Your task to perform on an android device: Do I have any events today? Image 0: 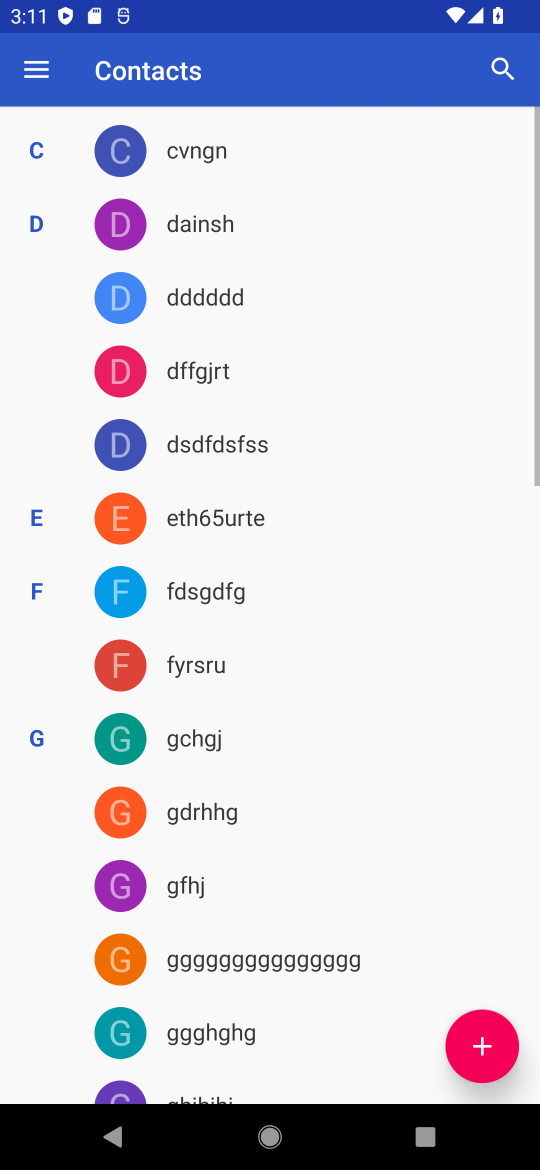
Step 0: press back button
Your task to perform on an android device: Do I have any events today? Image 1: 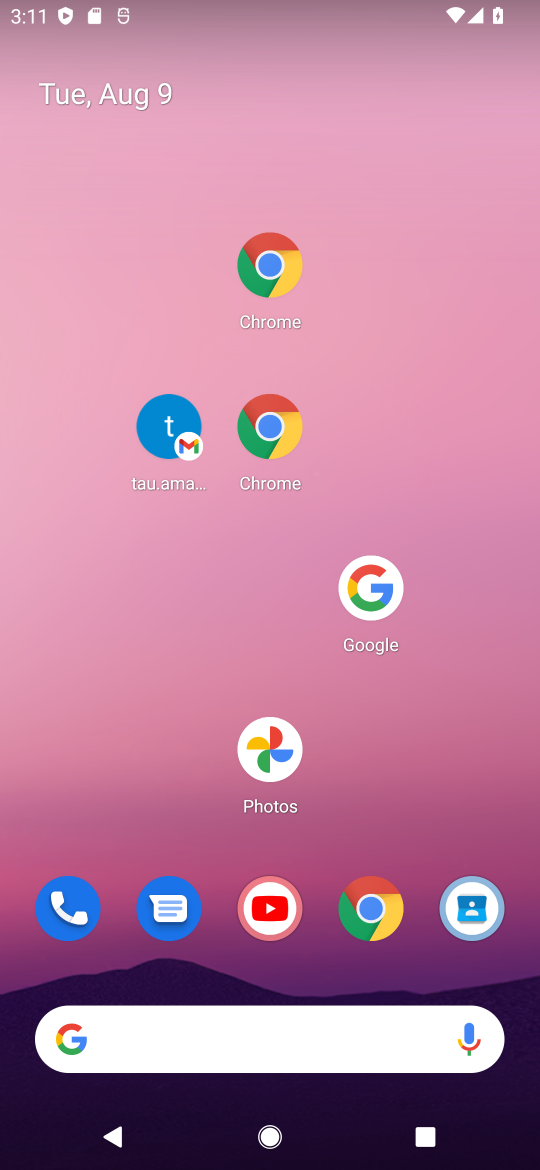
Step 1: drag from (318, 887) to (211, 217)
Your task to perform on an android device: Do I have any events today? Image 2: 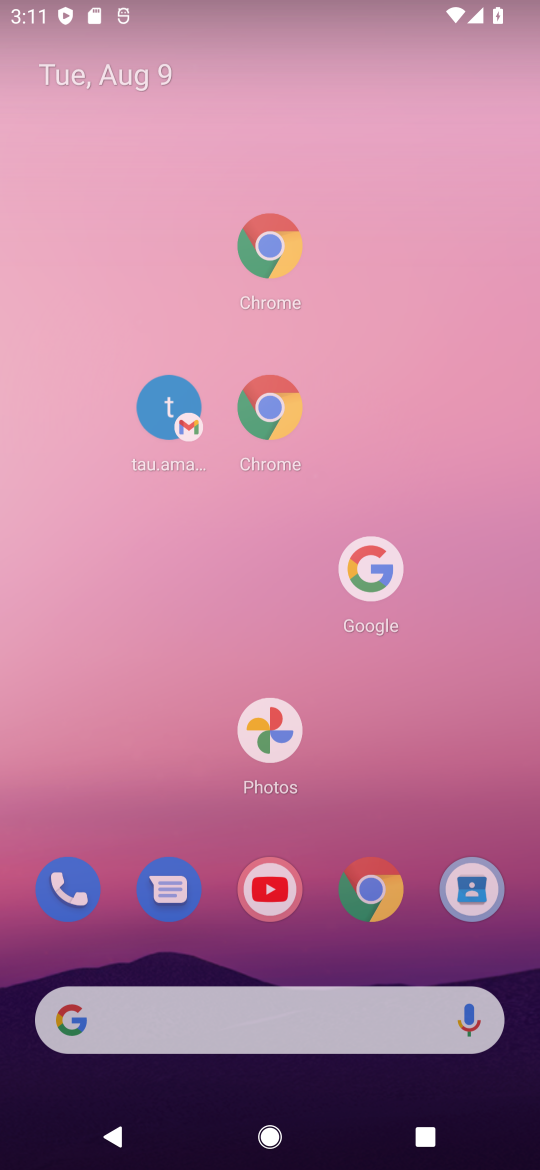
Step 2: drag from (273, 749) to (198, 110)
Your task to perform on an android device: Do I have any events today? Image 3: 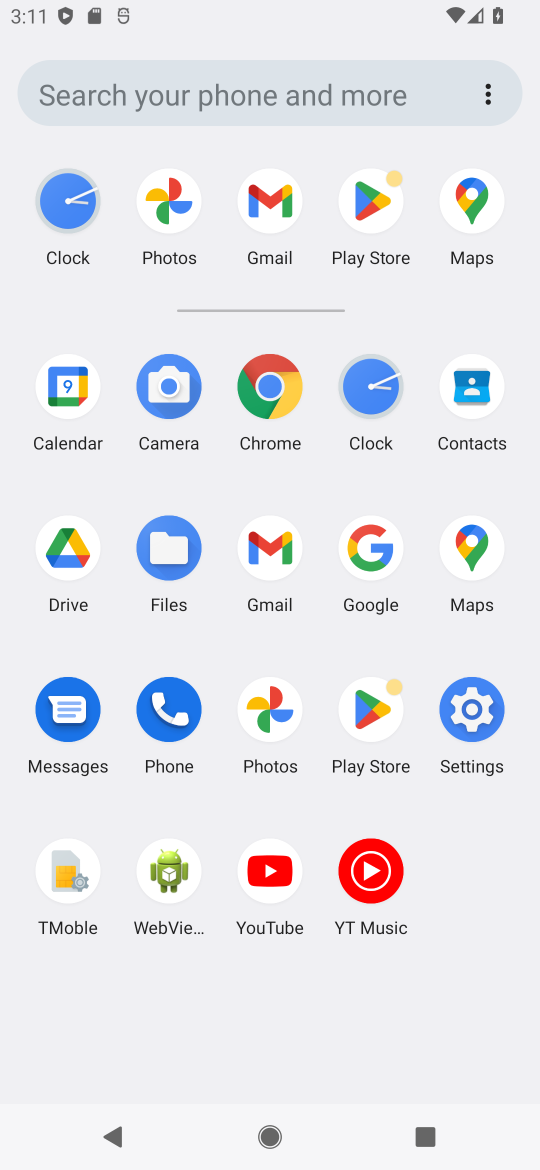
Step 3: click (69, 406)
Your task to perform on an android device: Do I have any events today? Image 4: 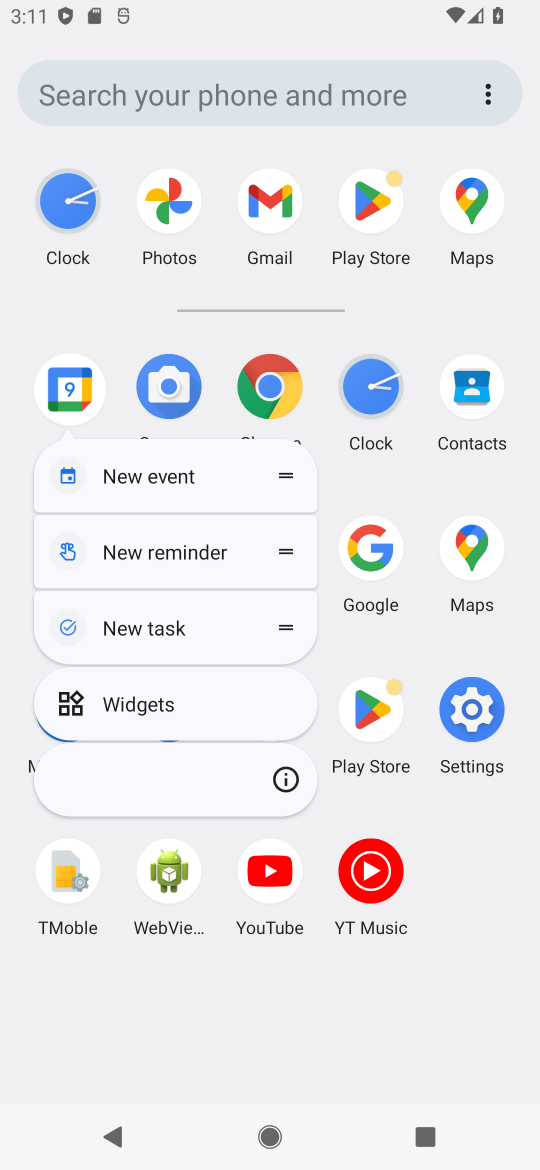
Step 4: click (69, 408)
Your task to perform on an android device: Do I have any events today? Image 5: 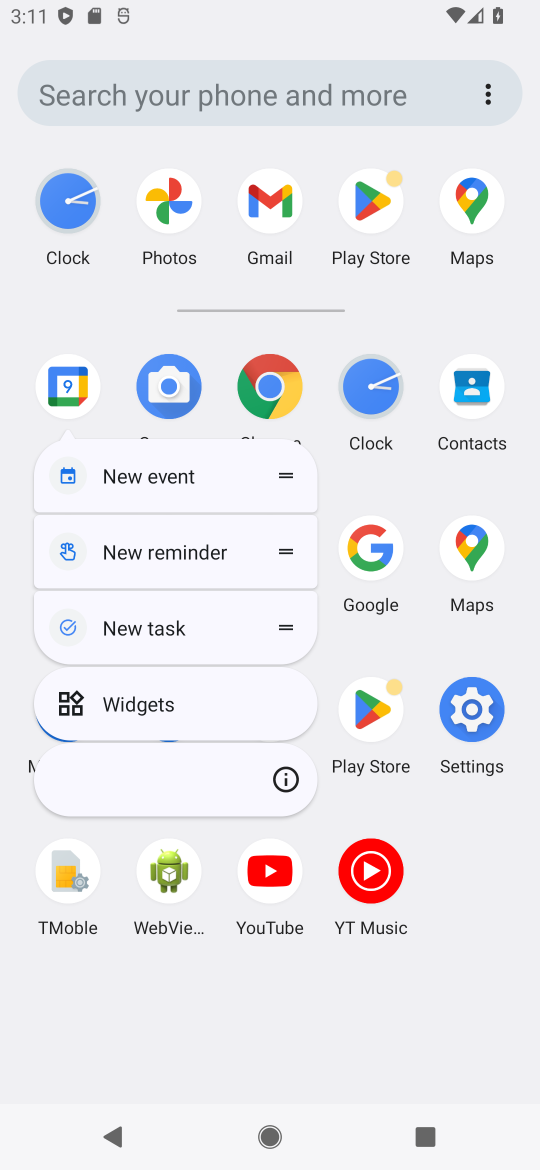
Step 5: click (77, 390)
Your task to perform on an android device: Do I have any events today? Image 6: 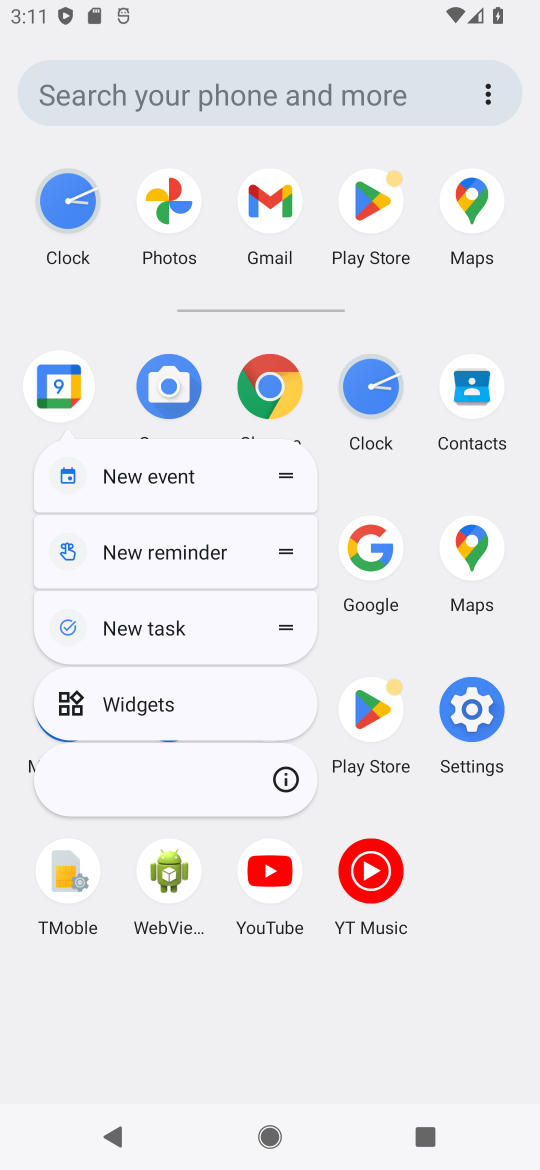
Step 6: click (67, 391)
Your task to perform on an android device: Do I have any events today? Image 7: 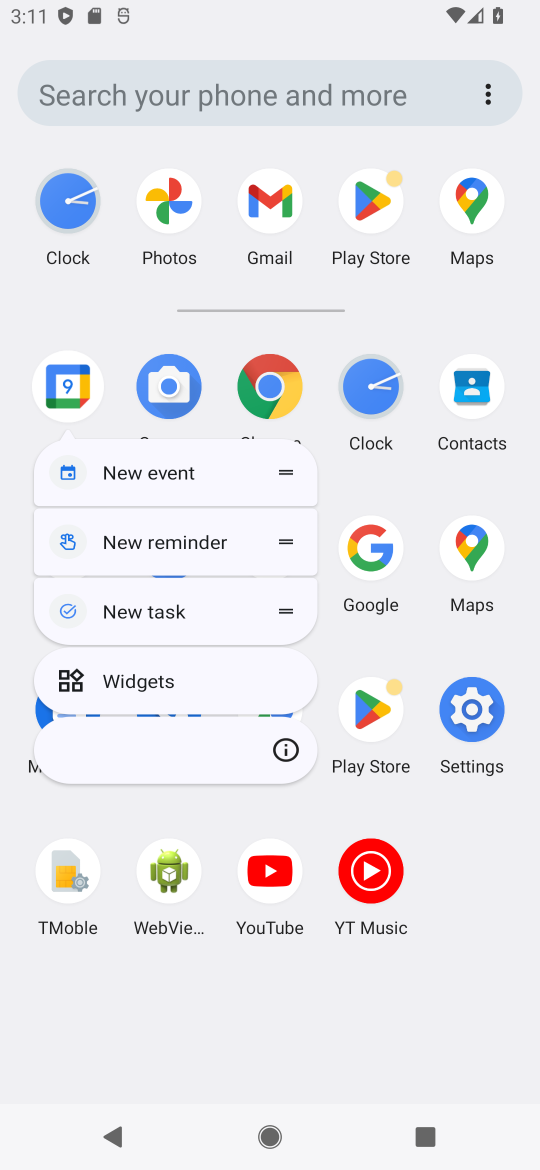
Step 7: click (67, 394)
Your task to perform on an android device: Do I have any events today? Image 8: 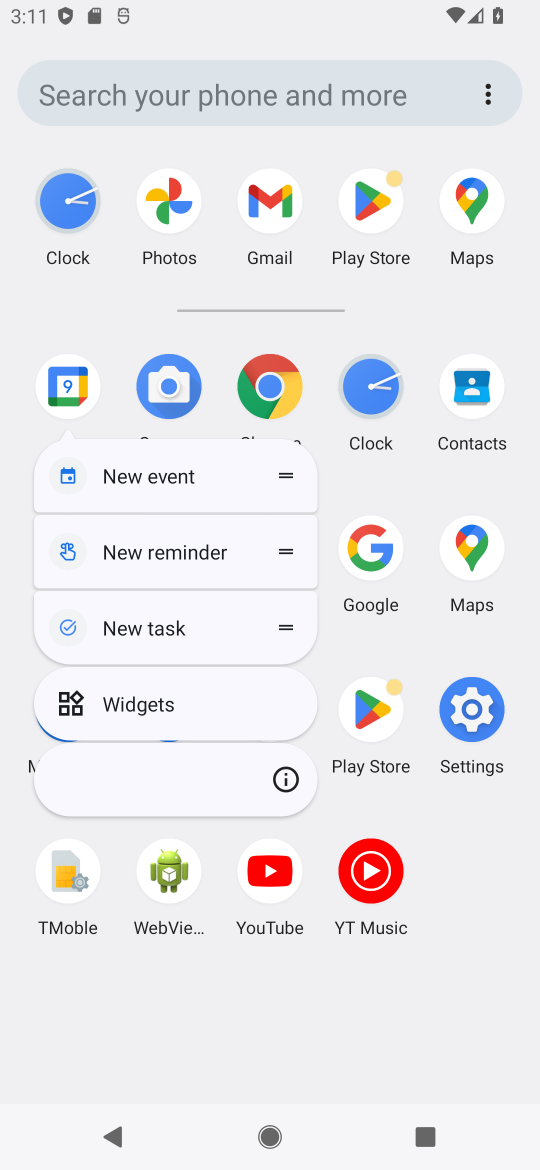
Step 8: click (183, 470)
Your task to perform on an android device: Do I have any events today? Image 9: 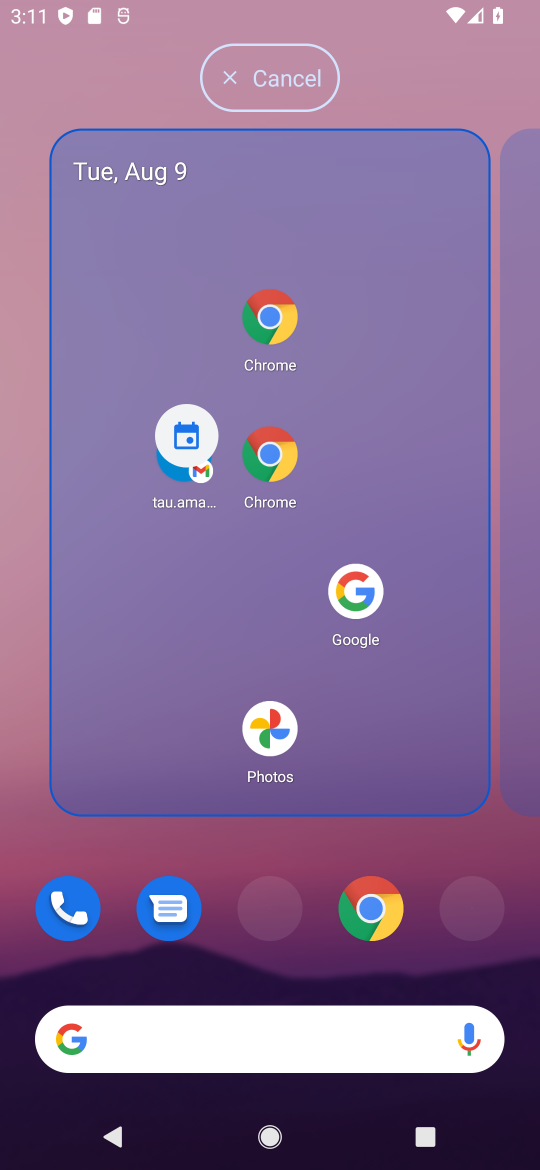
Step 9: click (189, 471)
Your task to perform on an android device: Do I have any events today? Image 10: 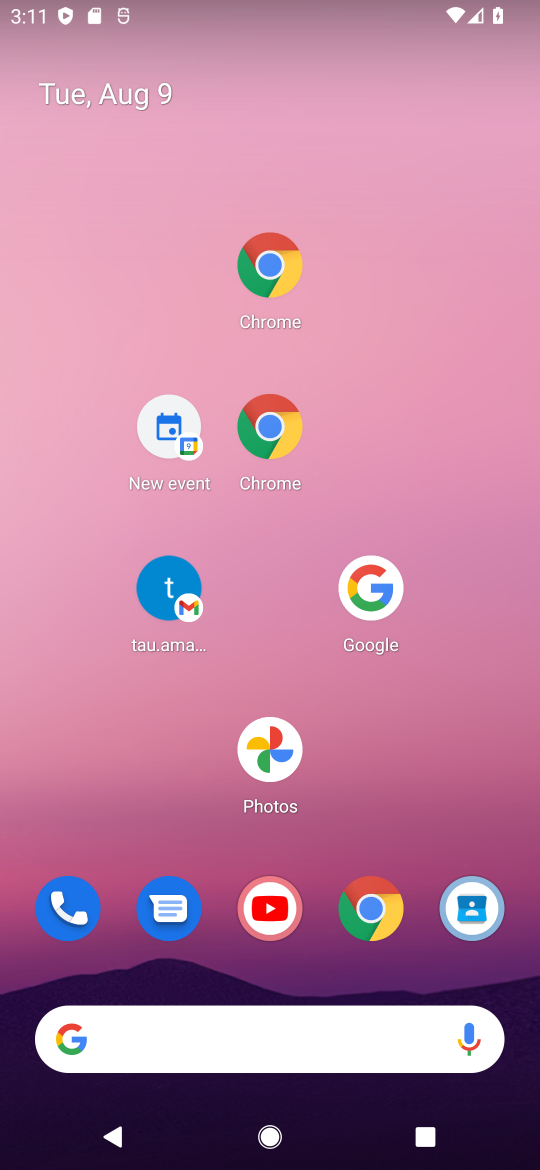
Step 10: drag from (327, 906) to (232, 247)
Your task to perform on an android device: Do I have any events today? Image 11: 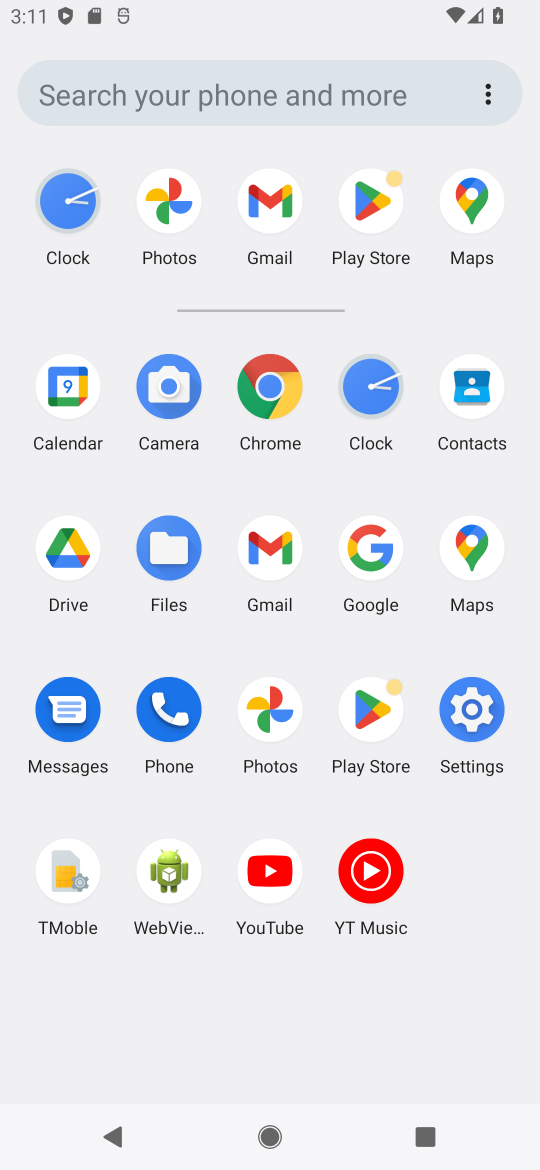
Step 11: click (67, 399)
Your task to perform on an android device: Do I have any events today? Image 12: 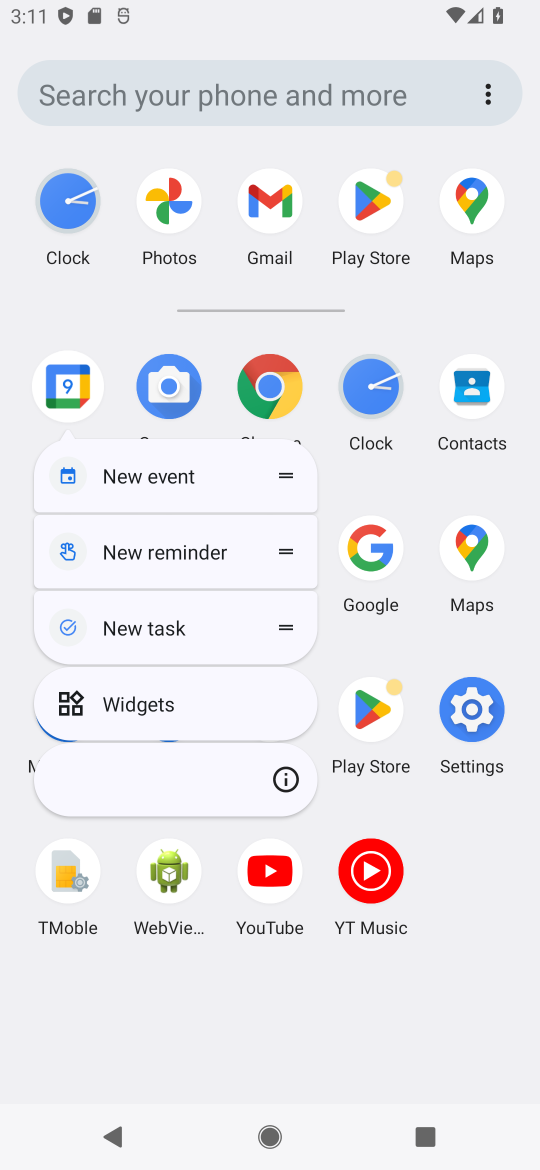
Step 12: click (67, 399)
Your task to perform on an android device: Do I have any events today? Image 13: 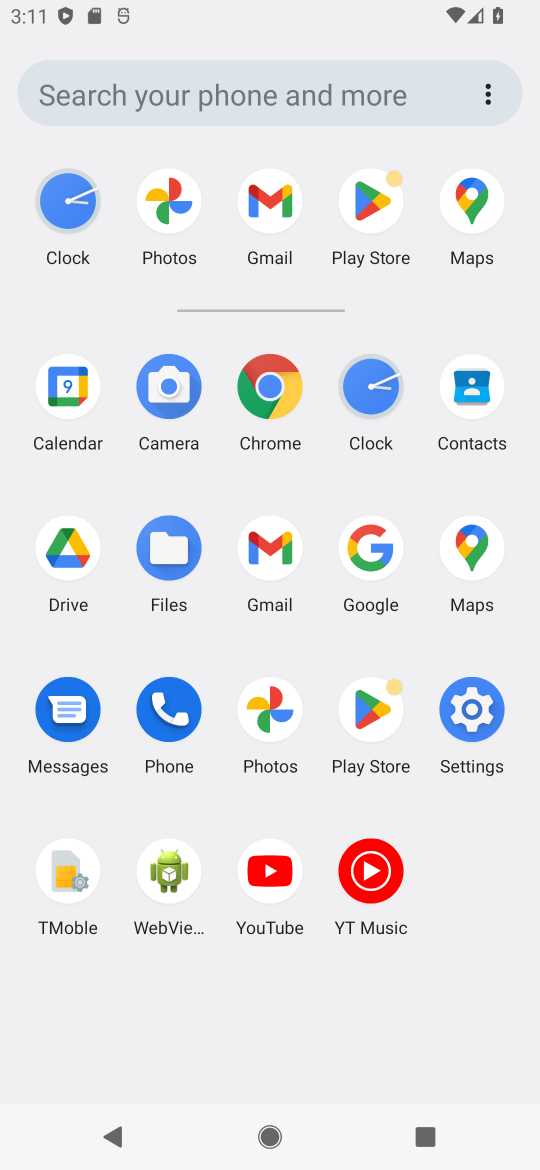
Step 13: click (76, 392)
Your task to perform on an android device: Do I have any events today? Image 14: 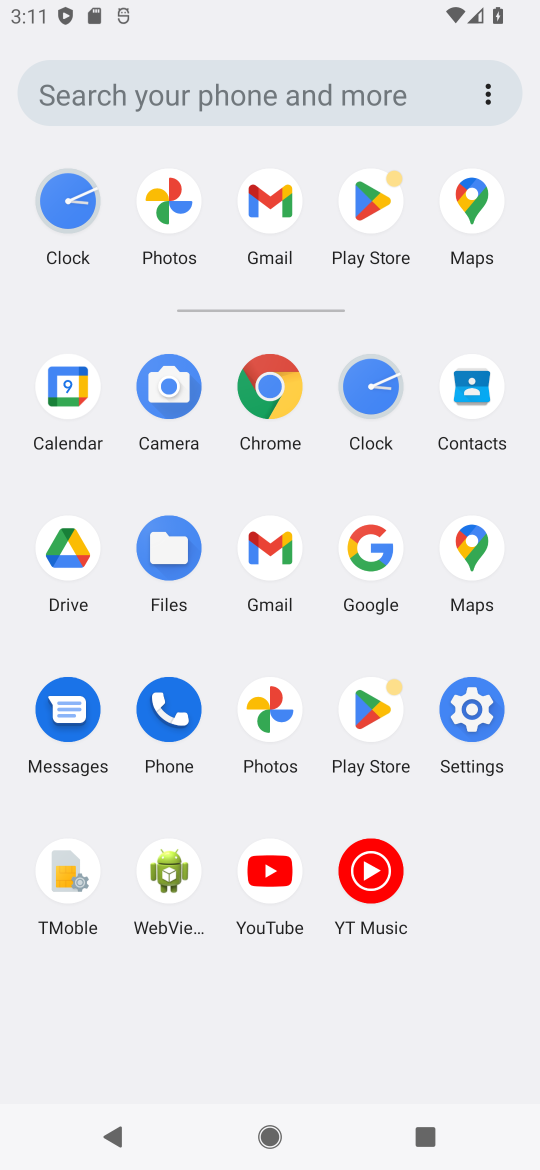
Step 14: click (77, 385)
Your task to perform on an android device: Do I have any events today? Image 15: 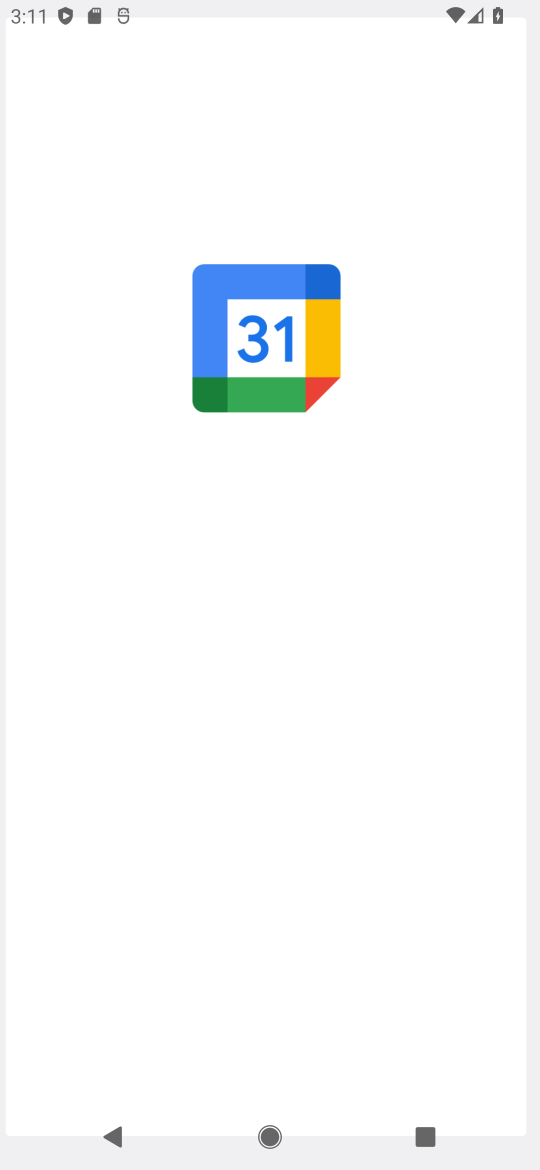
Step 15: click (80, 382)
Your task to perform on an android device: Do I have any events today? Image 16: 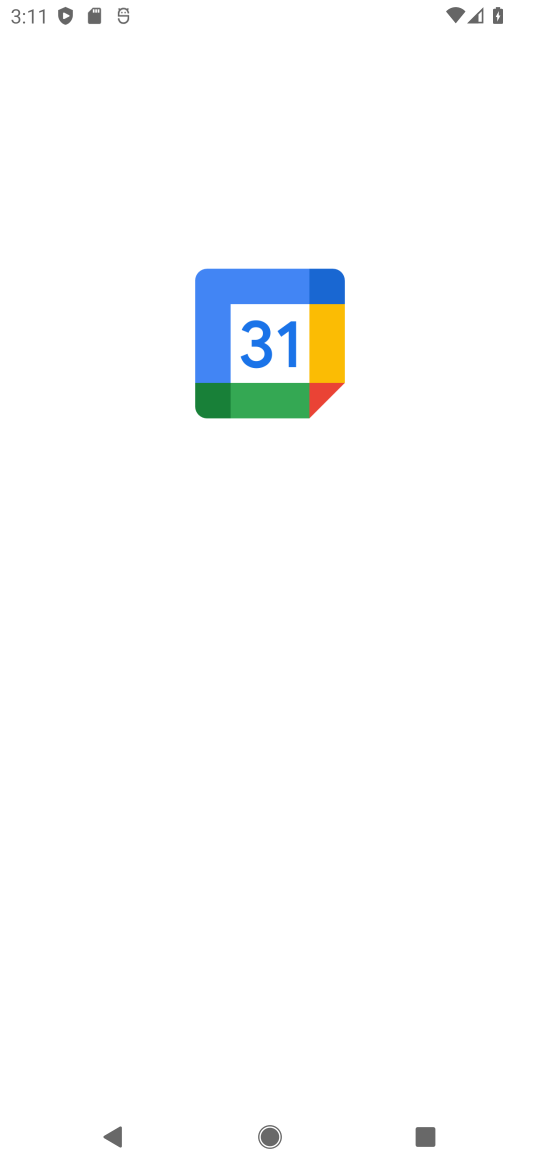
Step 16: click (81, 380)
Your task to perform on an android device: Do I have any events today? Image 17: 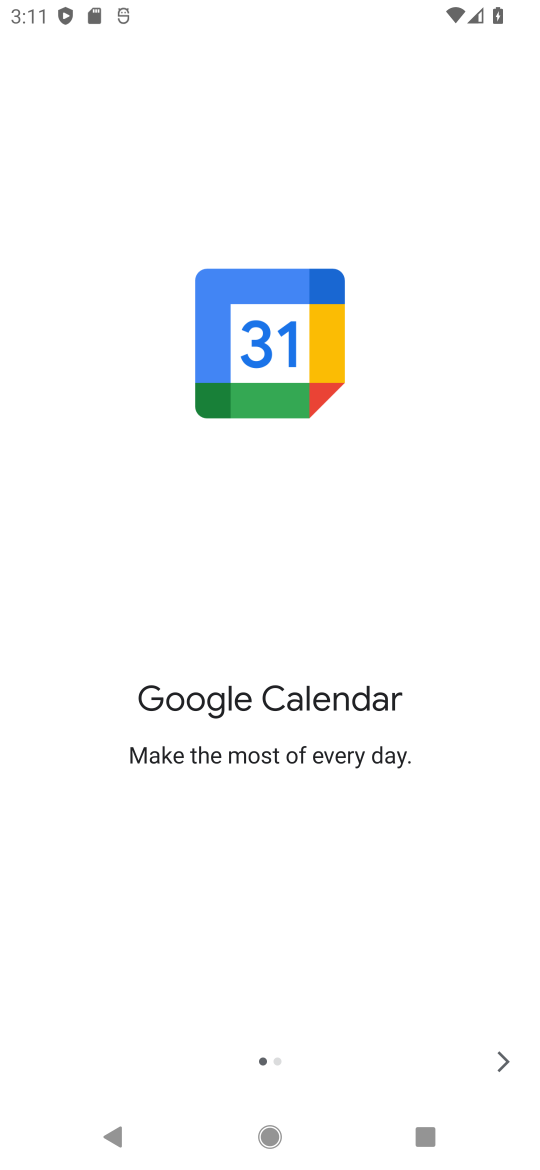
Step 17: click (507, 1087)
Your task to perform on an android device: Do I have any events today? Image 18: 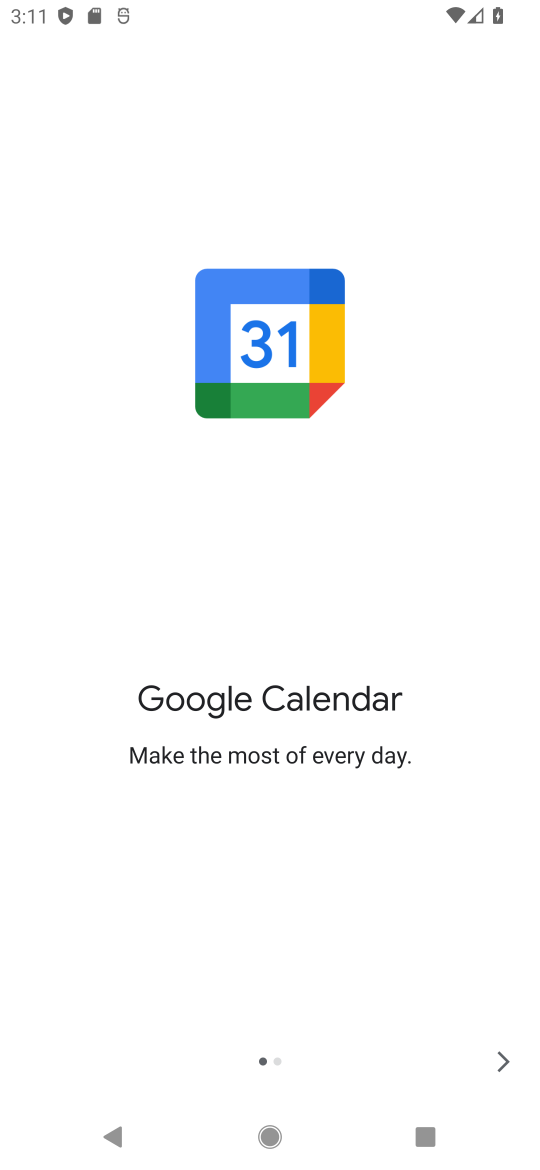
Step 18: click (507, 1086)
Your task to perform on an android device: Do I have any events today? Image 19: 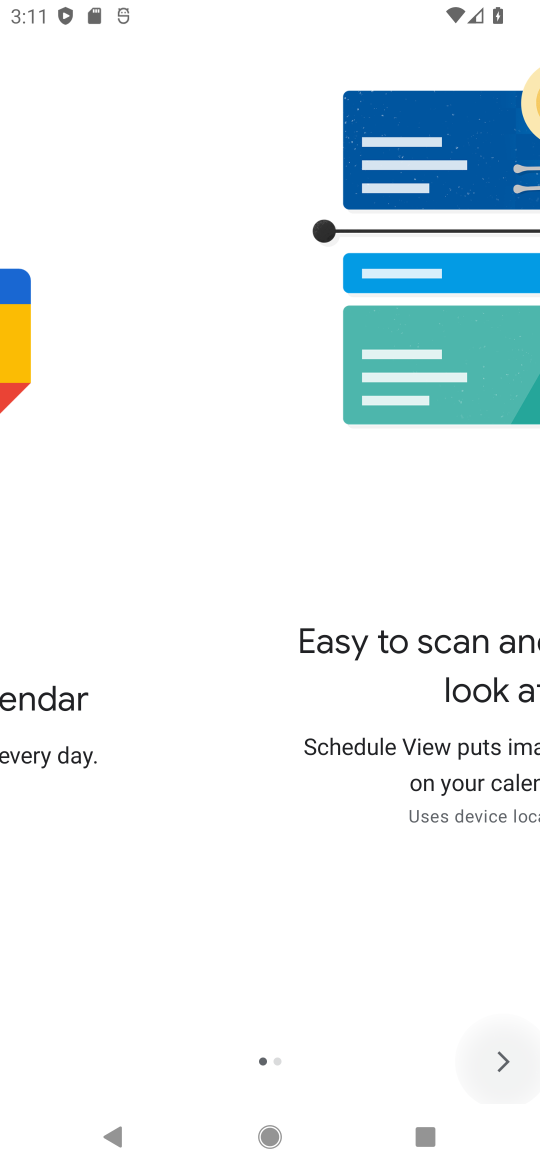
Step 19: click (507, 1086)
Your task to perform on an android device: Do I have any events today? Image 20: 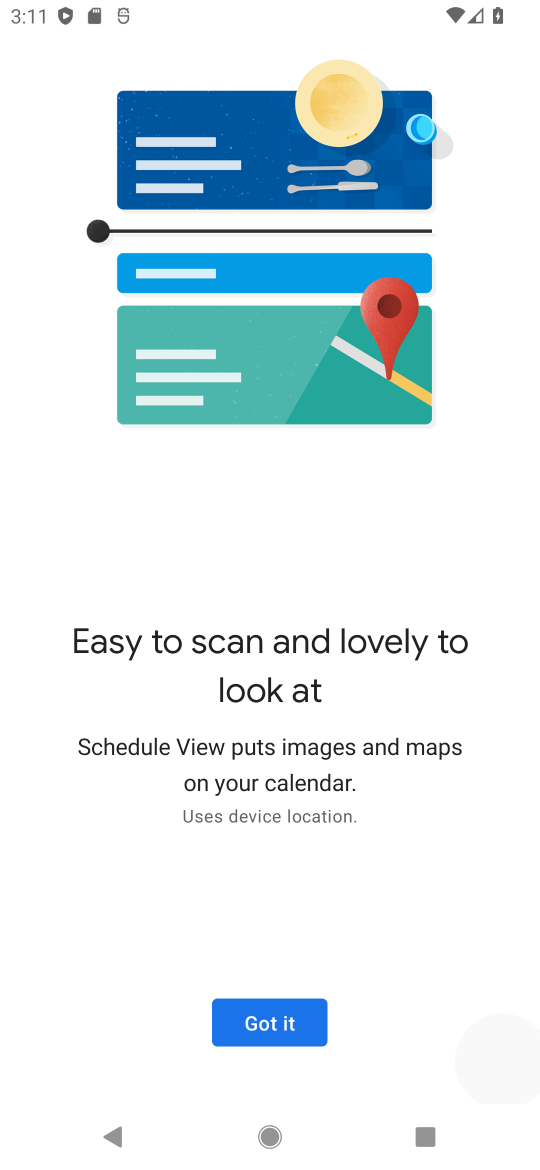
Step 20: click (274, 1001)
Your task to perform on an android device: Do I have any events today? Image 21: 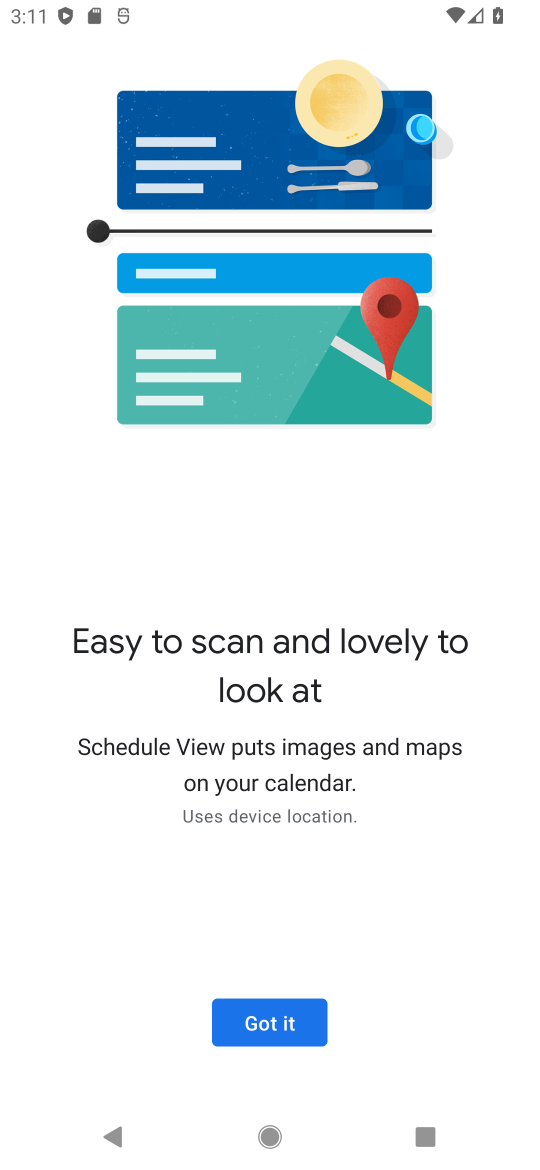
Step 21: click (271, 1003)
Your task to perform on an android device: Do I have any events today? Image 22: 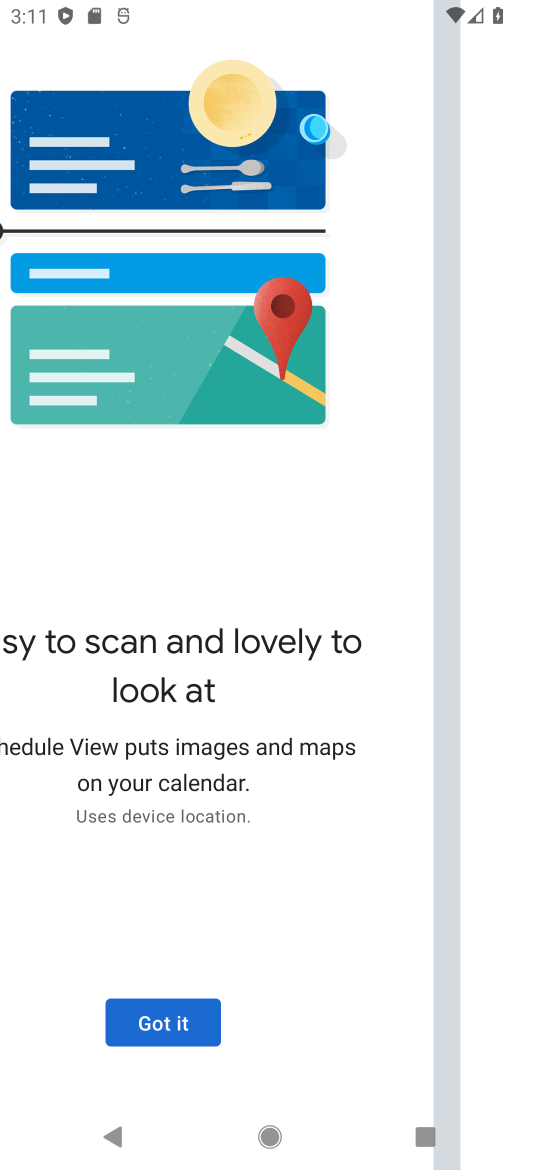
Step 22: click (274, 1007)
Your task to perform on an android device: Do I have any events today? Image 23: 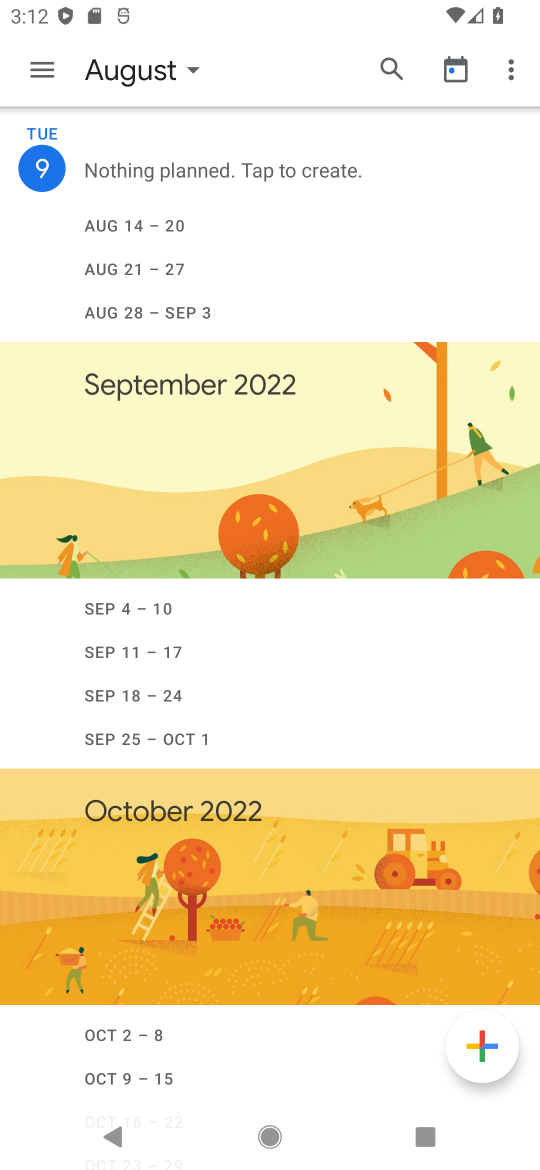
Step 23: click (187, 71)
Your task to perform on an android device: Do I have any events today? Image 24: 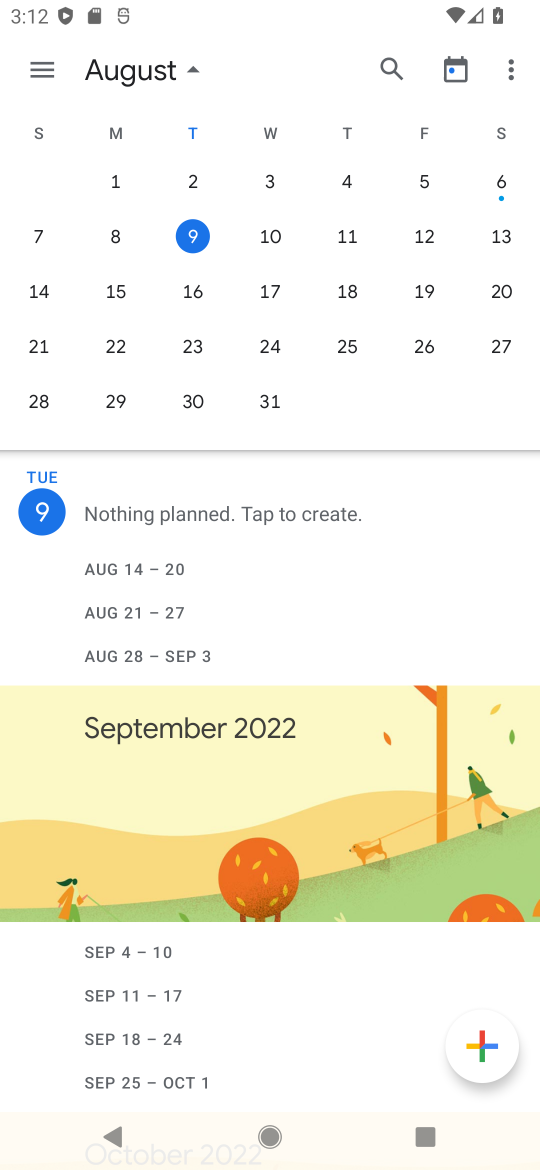
Step 24: task complete